Your task to perform on an android device: Search for macbook on costco, select the first entry, add it to the cart, then select checkout. Image 0: 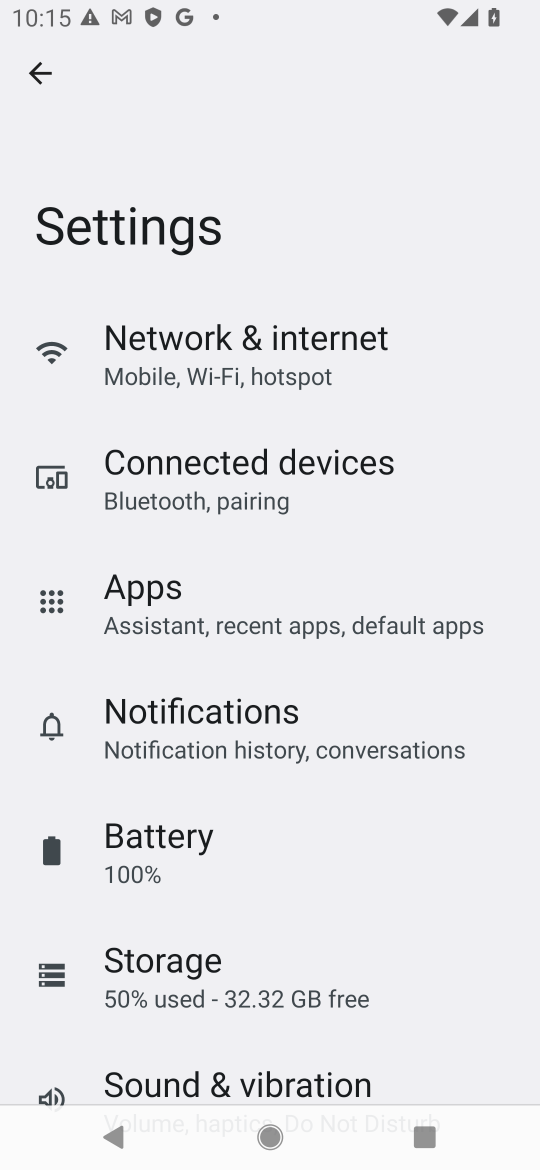
Step 0: press home button
Your task to perform on an android device: Search for macbook on costco, select the first entry, add it to the cart, then select checkout. Image 1: 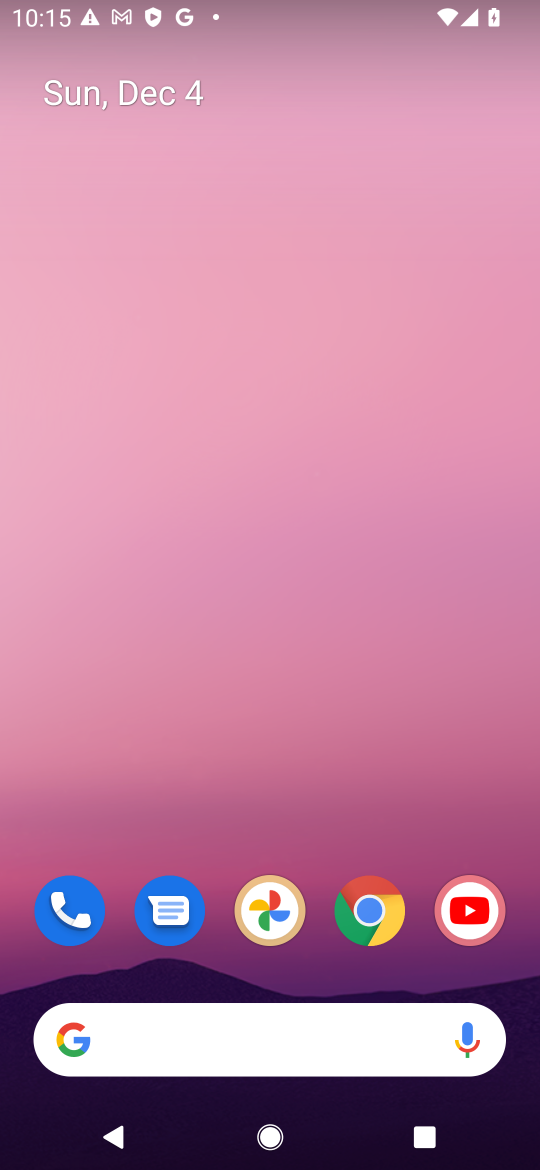
Step 1: drag from (321, 1086) to (146, 76)
Your task to perform on an android device: Search for macbook on costco, select the first entry, add it to the cart, then select checkout. Image 2: 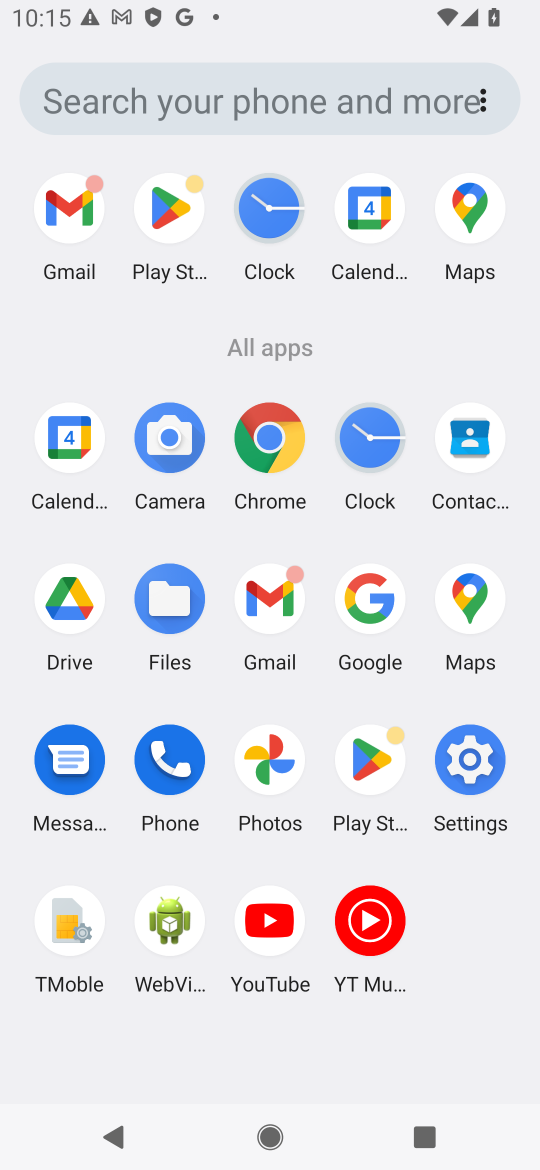
Step 2: click (269, 418)
Your task to perform on an android device: Search for macbook on costco, select the first entry, add it to the cart, then select checkout. Image 3: 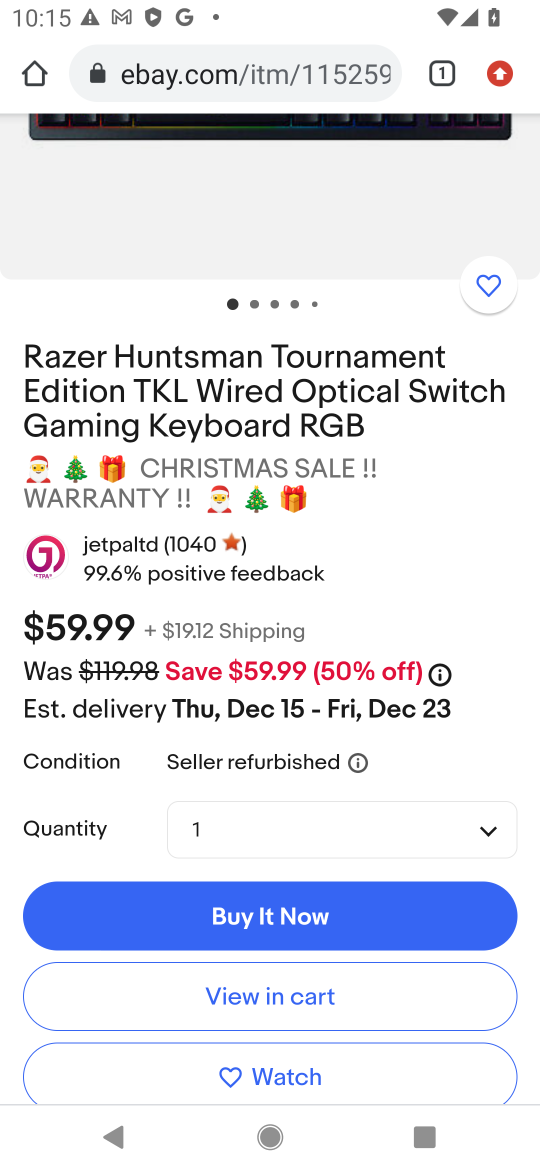
Step 3: click (155, 65)
Your task to perform on an android device: Search for macbook on costco, select the first entry, add it to the cart, then select checkout. Image 4: 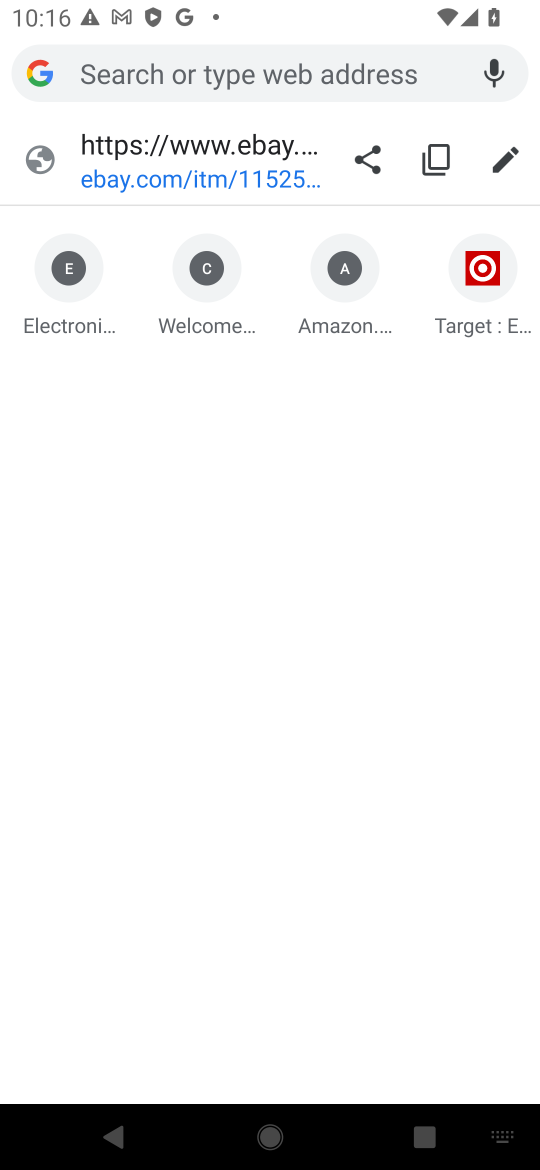
Step 4: type "costco,"
Your task to perform on an android device: Search for macbook on costco, select the first entry, add it to the cart, then select checkout. Image 5: 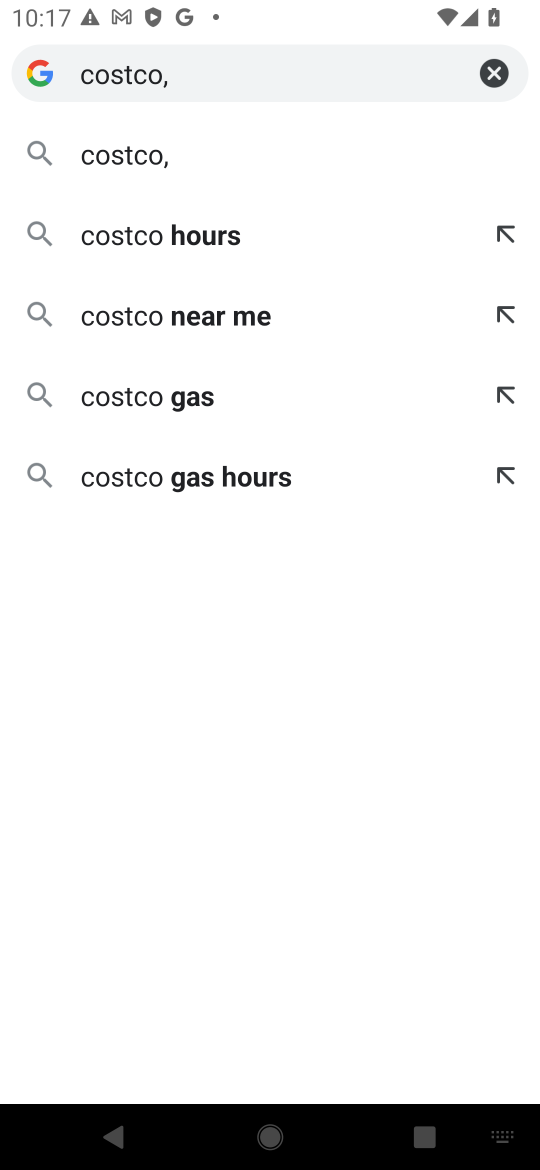
Step 5: click (131, 67)
Your task to perform on an android device: Search for macbook on costco, select the first entry, add it to the cart, then select checkout. Image 6: 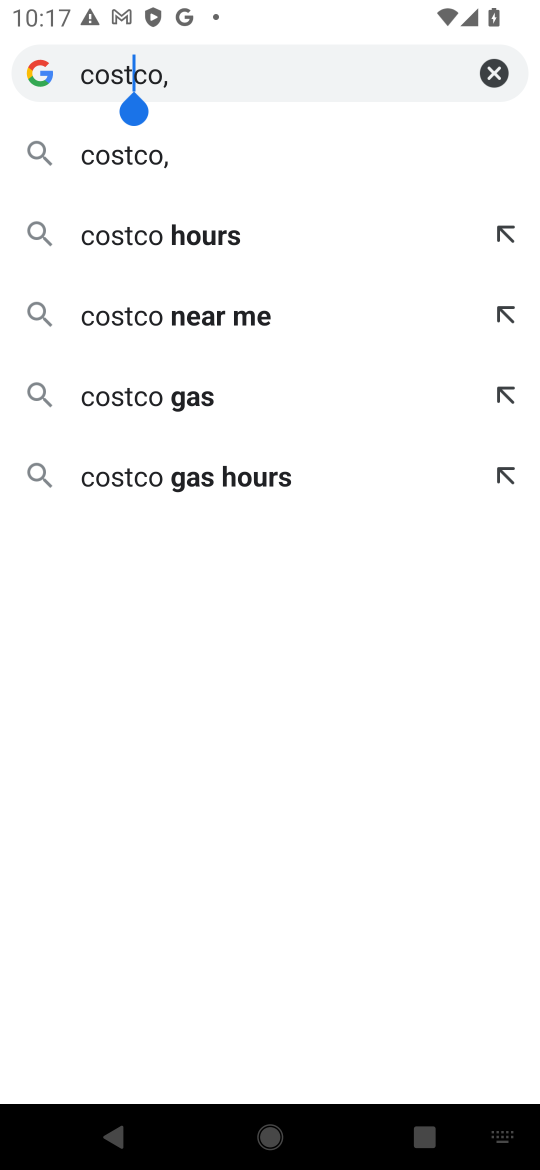
Step 6: click (131, 67)
Your task to perform on an android device: Search for macbook on costco, select the first entry, add it to the cart, then select checkout. Image 7: 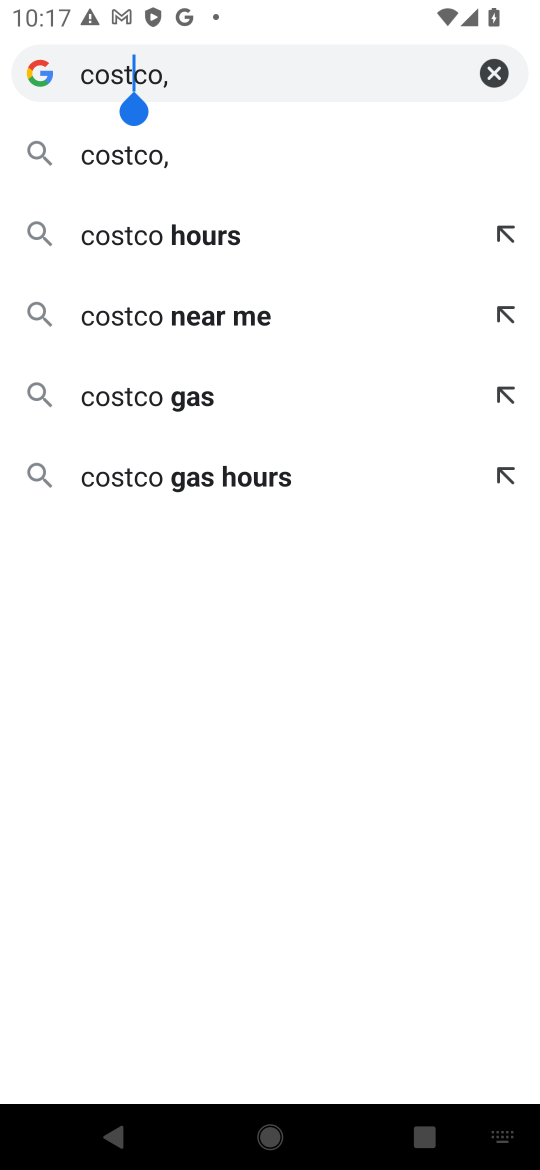
Step 7: click (131, 67)
Your task to perform on an android device: Search for macbook on costco, select the first entry, add it to the cart, then select checkout. Image 8: 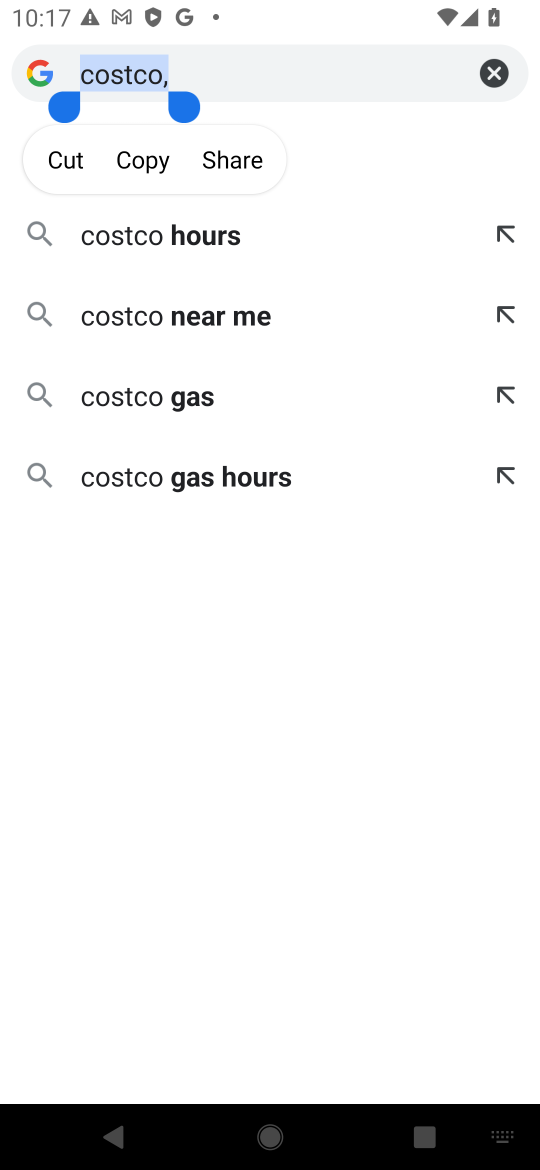
Step 8: click (122, 160)
Your task to perform on an android device: Search for macbook on costco, select the first entry, add it to the cart, then select checkout. Image 9: 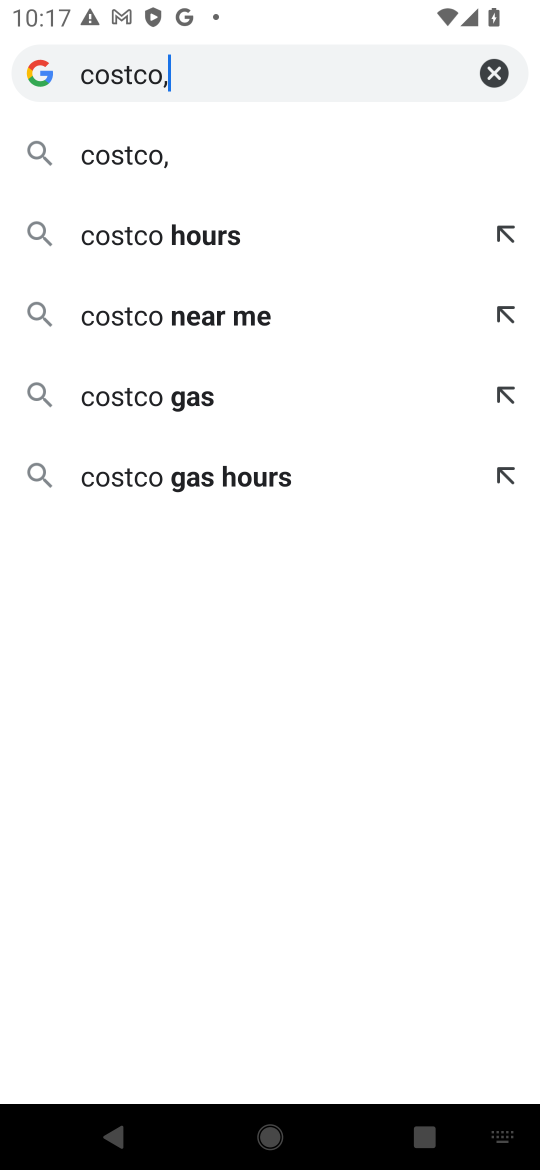
Step 9: click (202, 639)
Your task to perform on an android device: Search for macbook on costco, select the first entry, add it to the cart, then select checkout. Image 10: 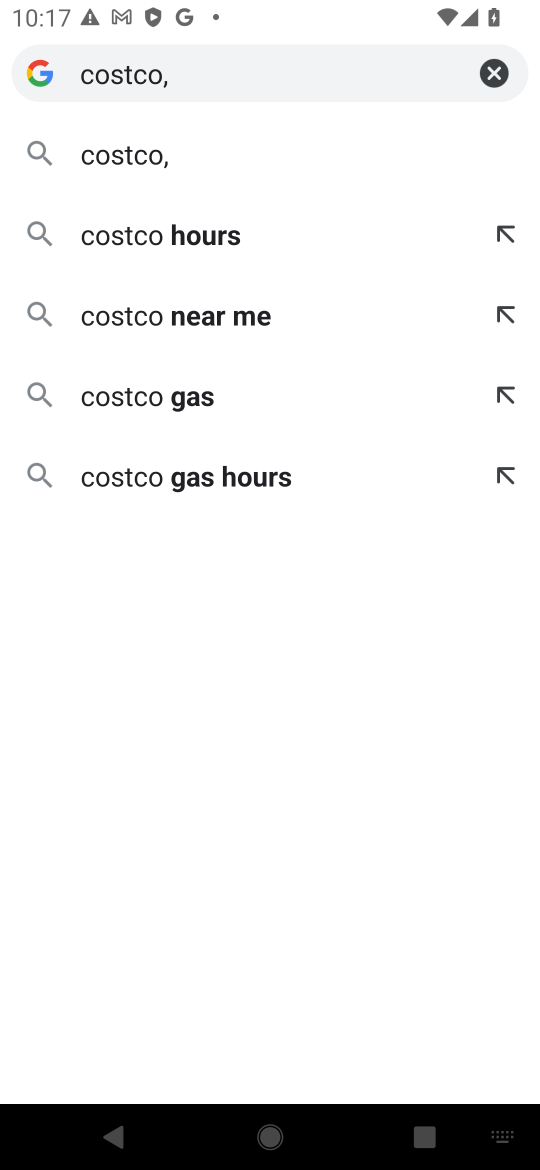
Step 10: click (134, 163)
Your task to perform on an android device: Search for macbook on costco, select the first entry, add it to the cart, then select checkout. Image 11: 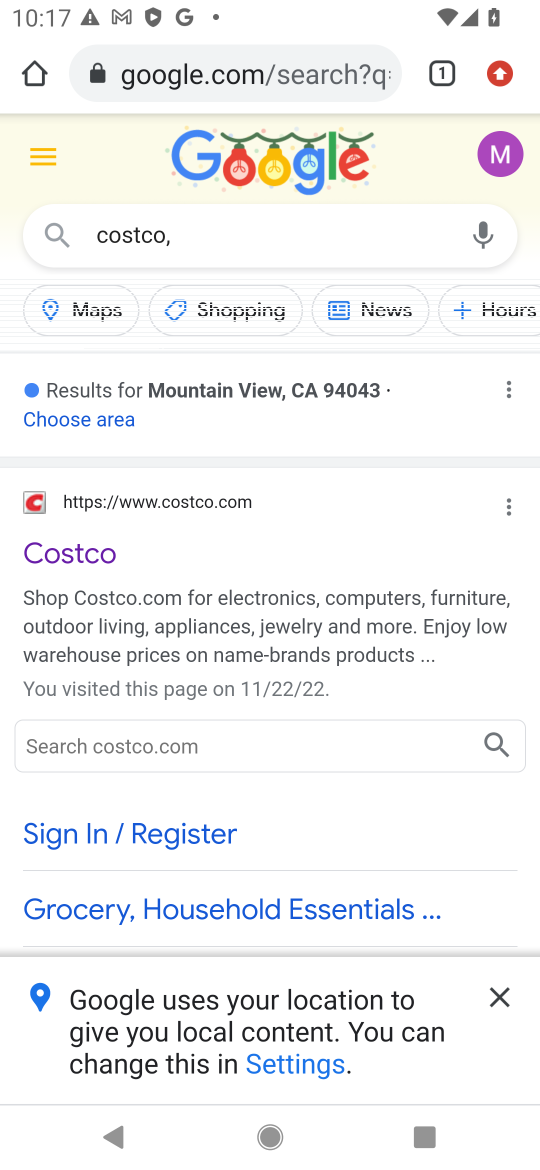
Step 11: click (57, 550)
Your task to perform on an android device: Search for macbook on costco, select the first entry, add it to the cart, then select checkout. Image 12: 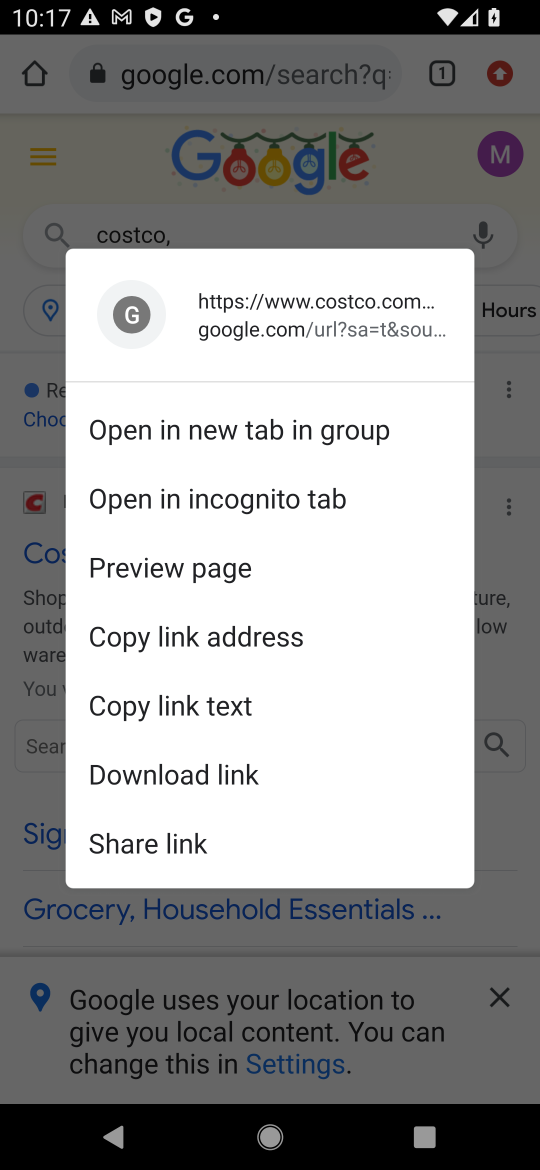
Step 12: click (255, 428)
Your task to perform on an android device: Search for macbook on costco, select the first entry, add it to the cart, then select checkout. Image 13: 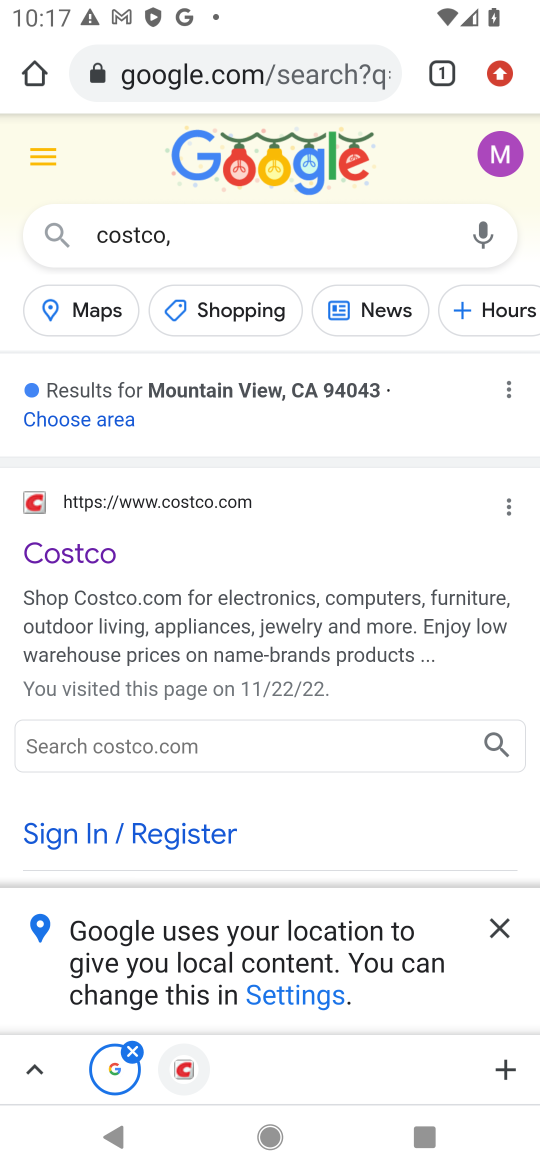
Step 13: drag from (106, 710) to (145, 188)
Your task to perform on an android device: Search for macbook on costco, select the first entry, add it to the cart, then select checkout. Image 14: 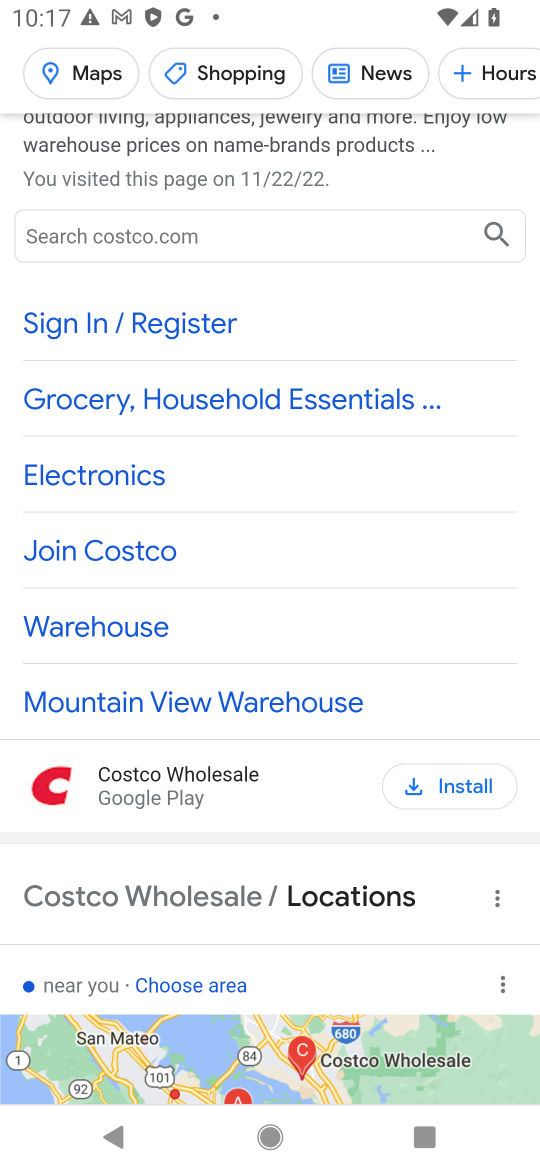
Step 14: drag from (209, 304) to (187, 940)
Your task to perform on an android device: Search for macbook on costco, select the first entry, add it to the cart, then select checkout. Image 15: 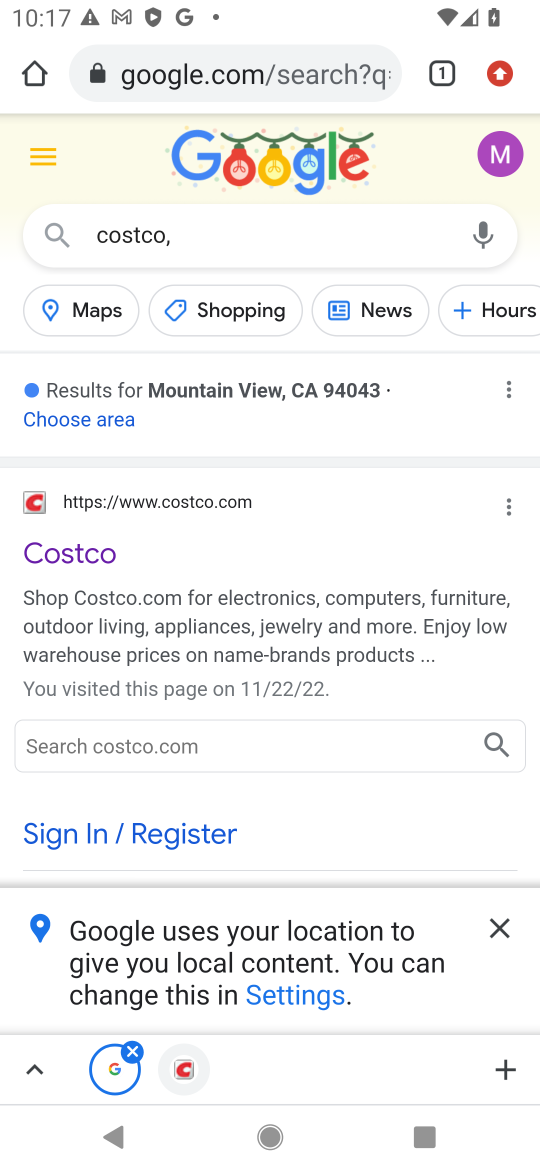
Step 15: click (292, 69)
Your task to perform on an android device: Search for macbook on costco, select the first entry, add it to the cart, then select checkout. Image 16: 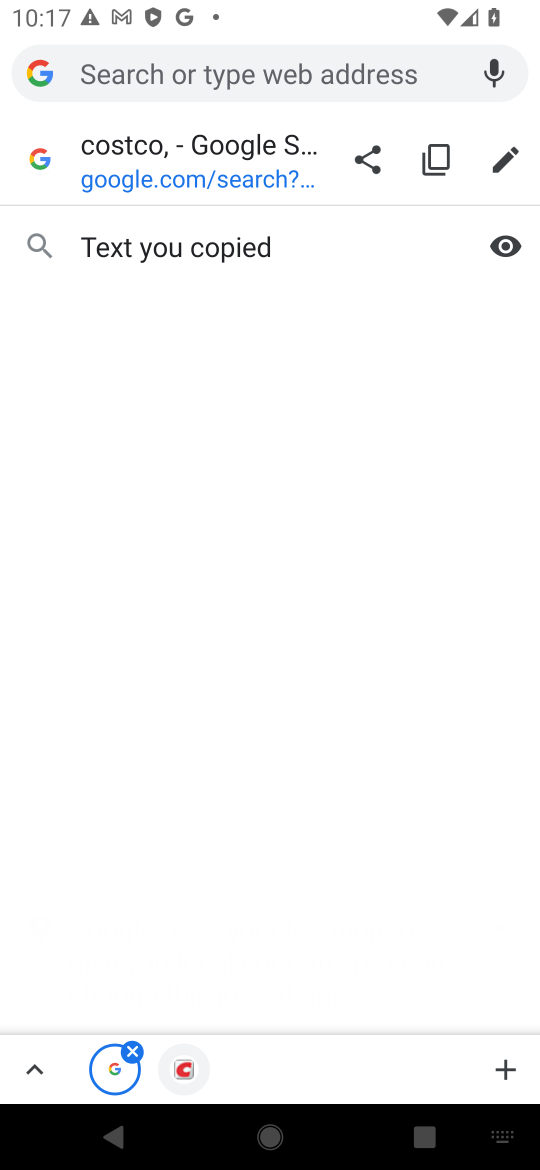
Step 16: type "costco"
Your task to perform on an android device: Search for macbook on costco, select the first entry, add it to the cart, then select checkout. Image 17: 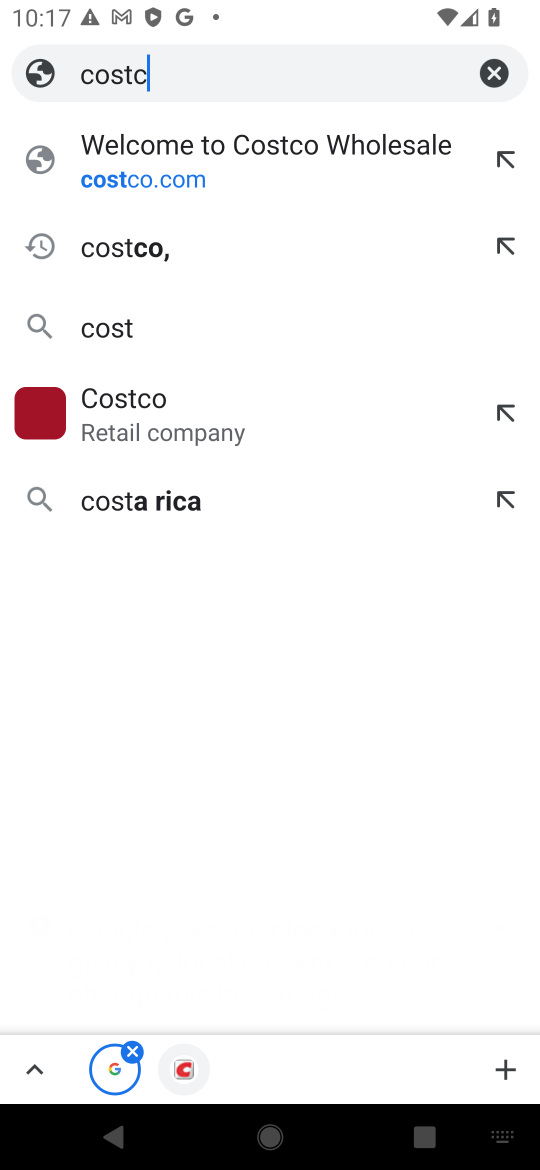
Step 17: type ""
Your task to perform on an android device: Search for macbook on costco, select the first entry, add it to the cart, then select checkout. Image 18: 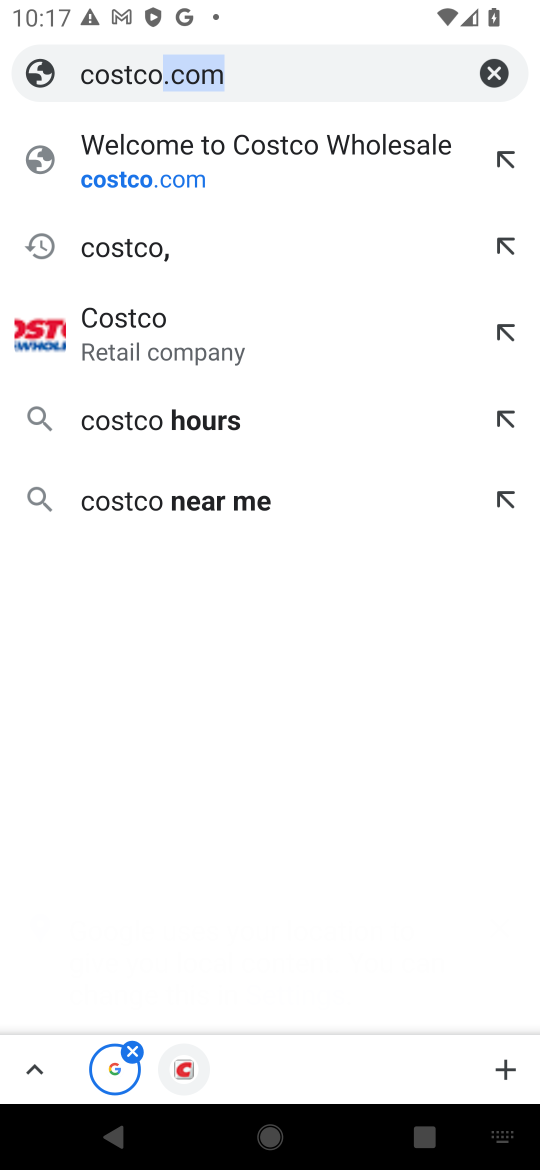
Step 18: click (167, 177)
Your task to perform on an android device: Search for macbook on costco, select the first entry, add it to the cart, then select checkout. Image 19: 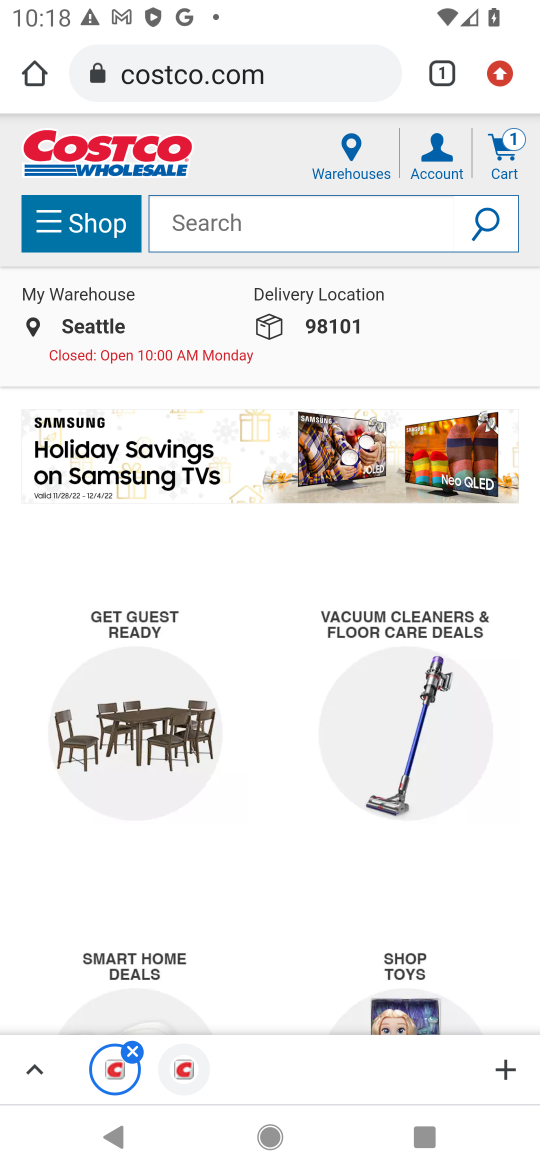
Step 19: drag from (243, 799) to (236, 1033)
Your task to perform on an android device: Search for macbook on costco, select the first entry, add it to the cart, then select checkout. Image 20: 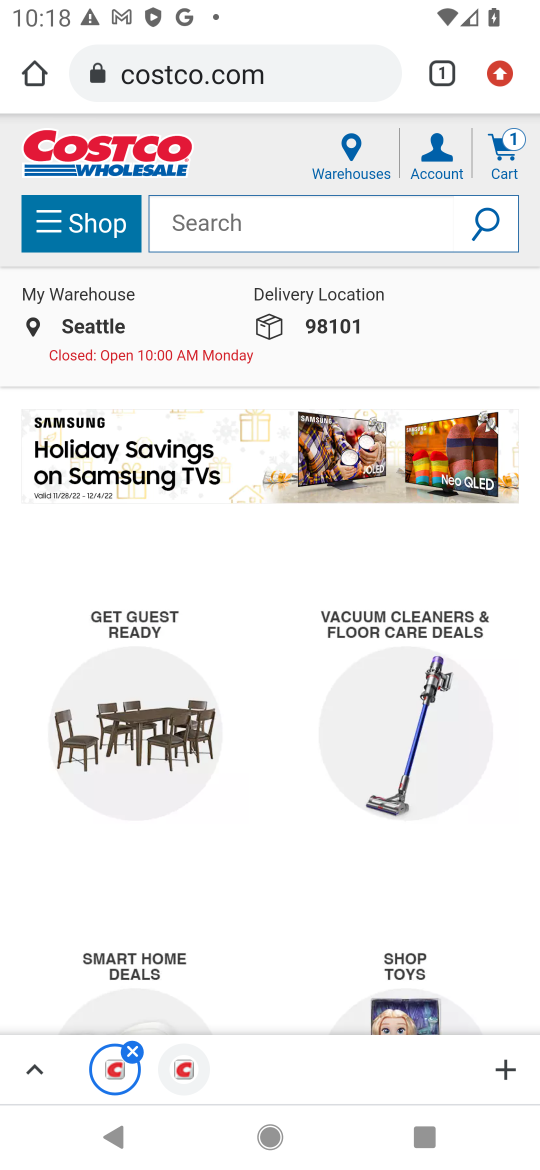
Step 20: click (222, 212)
Your task to perform on an android device: Search for macbook on costco, select the first entry, add it to the cart, then select checkout. Image 21: 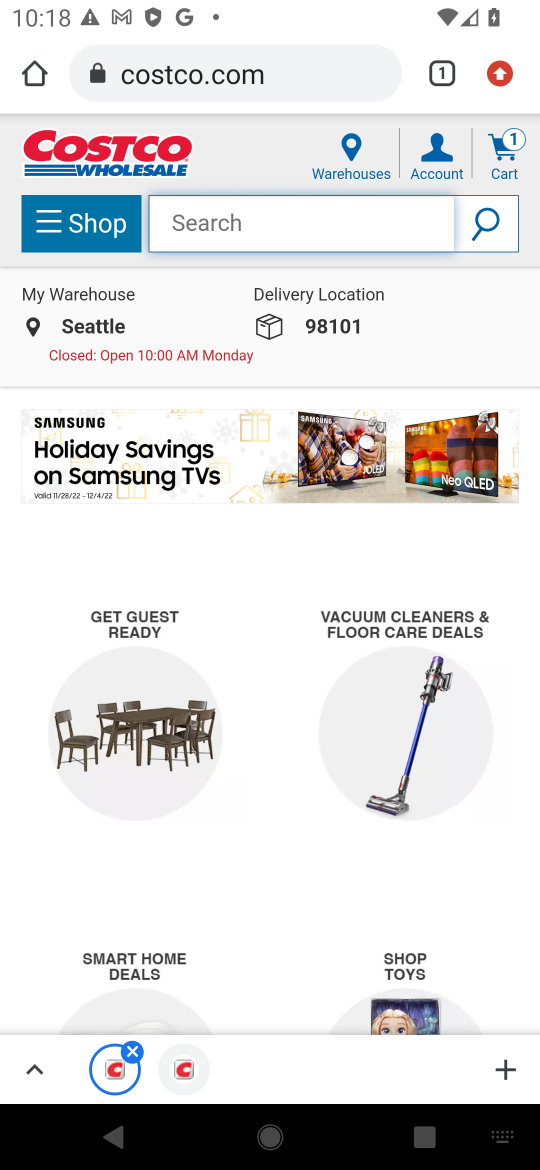
Step 21: type "macbook "
Your task to perform on an android device: Search for macbook on costco, select the first entry, add it to the cart, then select checkout. Image 22: 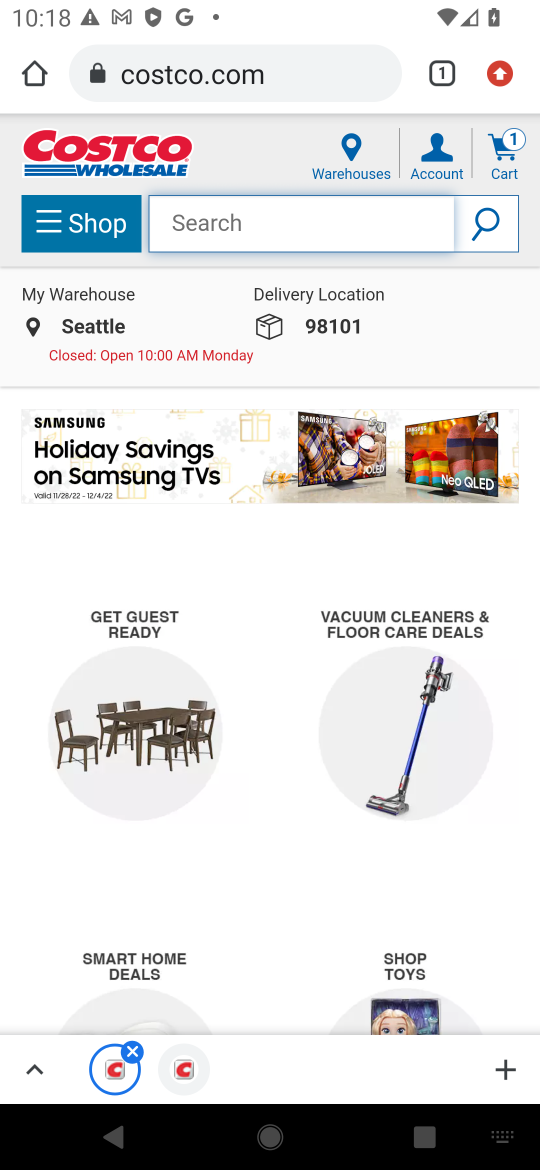
Step 22: type ""
Your task to perform on an android device: Search for macbook on costco, select the first entry, add it to the cart, then select checkout. Image 23: 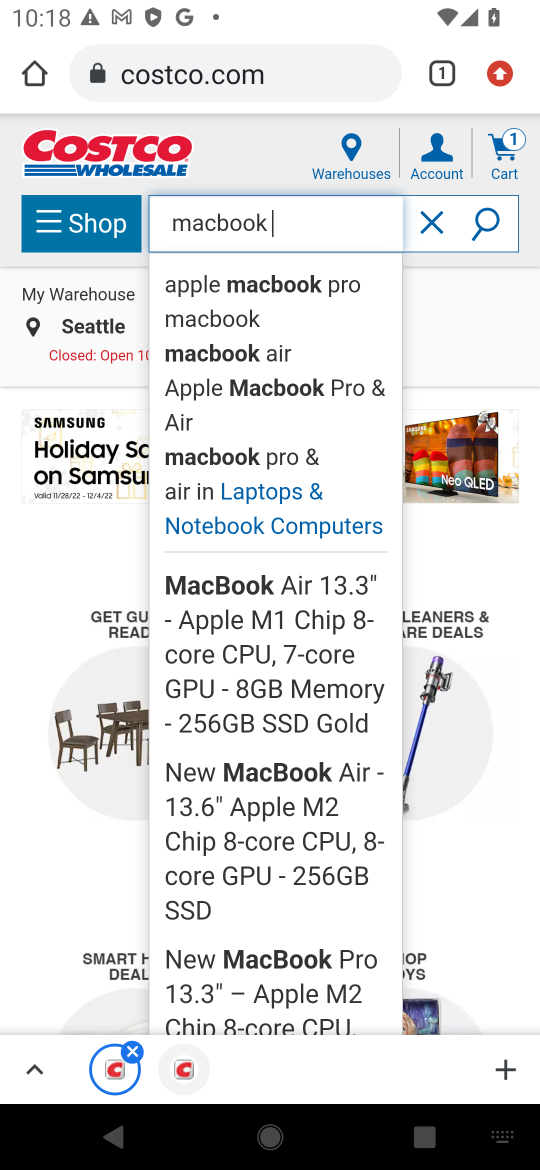
Step 23: click (484, 219)
Your task to perform on an android device: Search for macbook on costco, select the first entry, add it to the cart, then select checkout. Image 24: 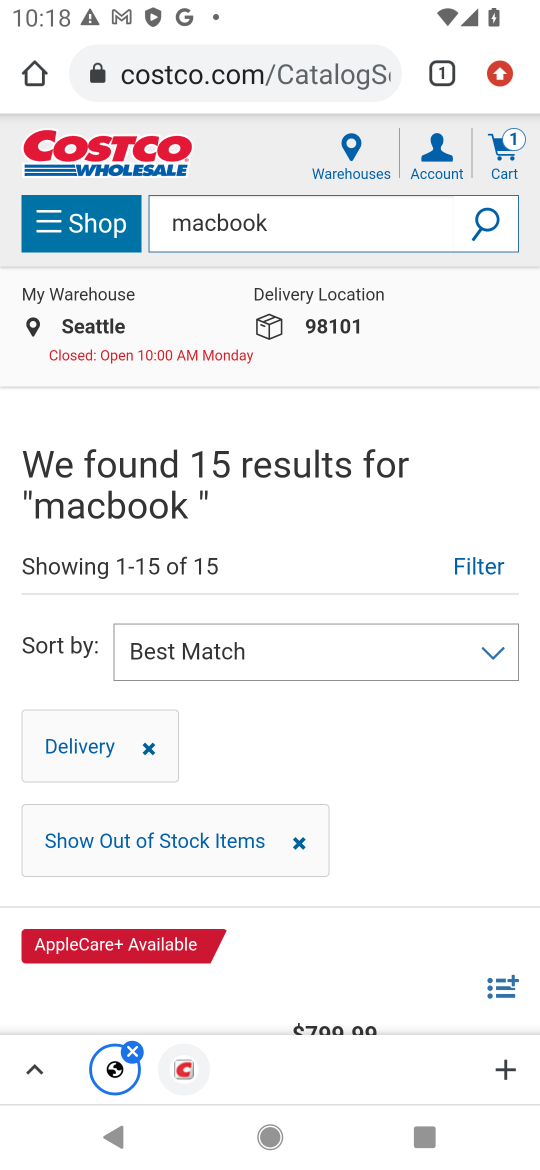
Step 24: drag from (374, 580) to (374, 381)
Your task to perform on an android device: Search for macbook on costco, select the first entry, add it to the cart, then select checkout. Image 25: 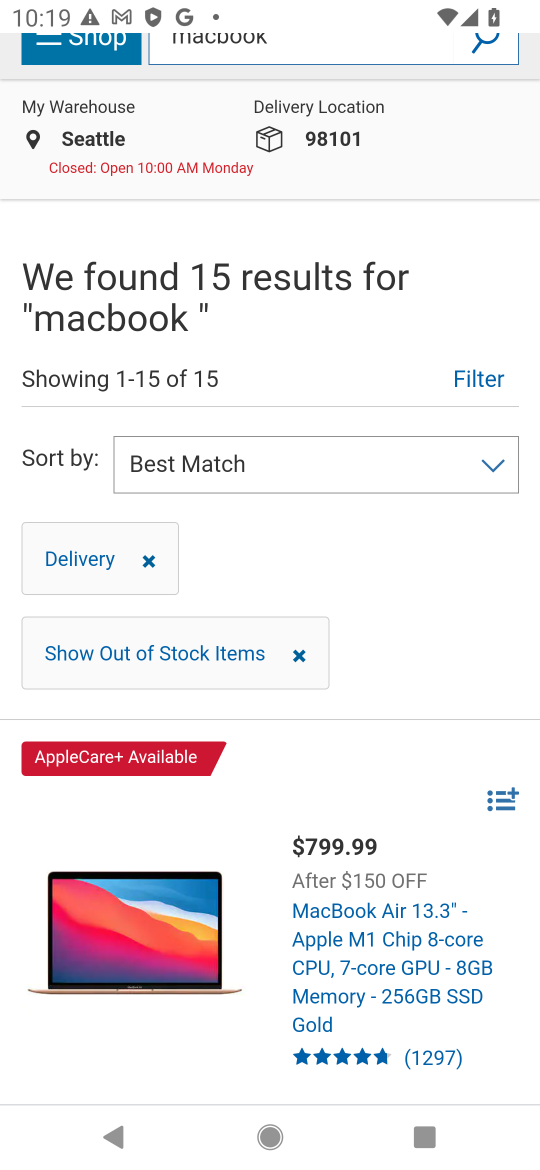
Step 25: click (272, 932)
Your task to perform on an android device: Search for macbook on costco, select the first entry, add it to the cart, then select checkout. Image 26: 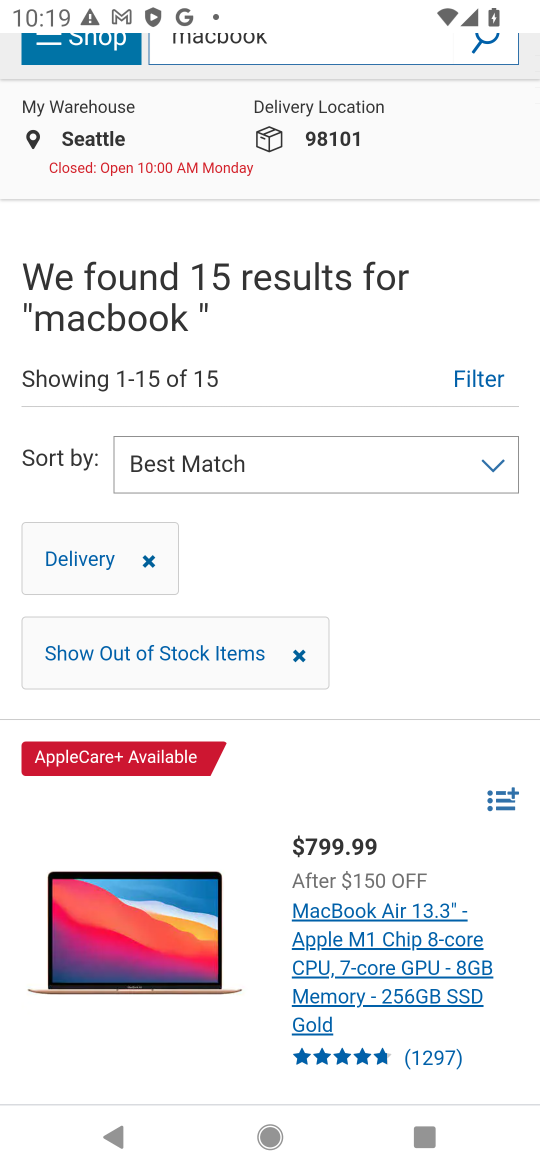
Step 26: click (164, 904)
Your task to perform on an android device: Search for macbook on costco, select the first entry, add it to the cart, then select checkout. Image 27: 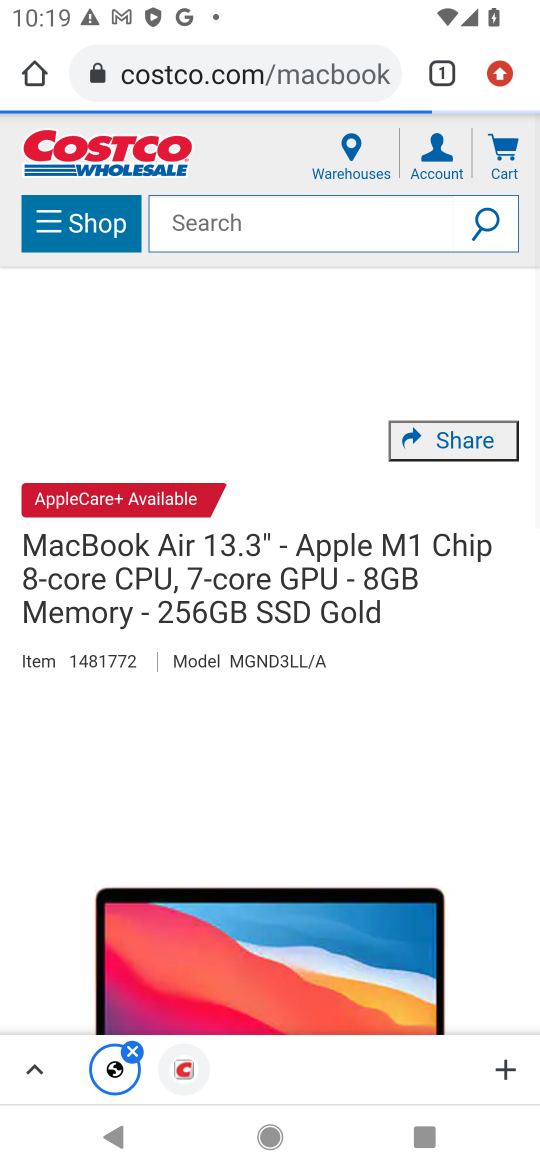
Step 27: drag from (339, 786) to (389, 76)
Your task to perform on an android device: Search for macbook on costco, select the first entry, add it to the cart, then select checkout. Image 28: 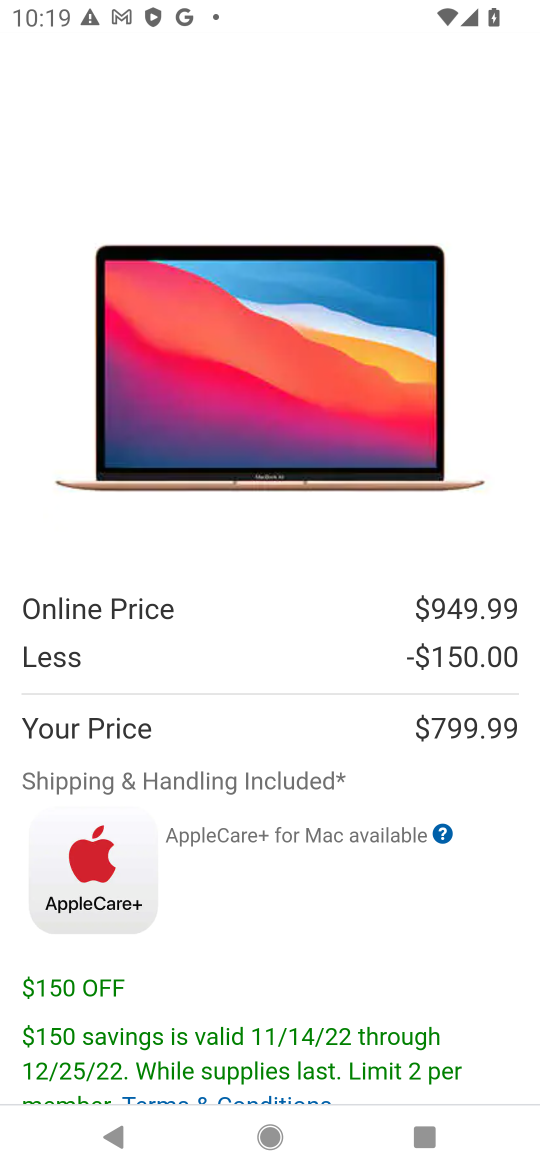
Step 28: drag from (273, 943) to (363, 274)
Your task to perform on an android device: Search for macbook on costco, select the first entry, add it to the cart, then select checkout. Image 29: 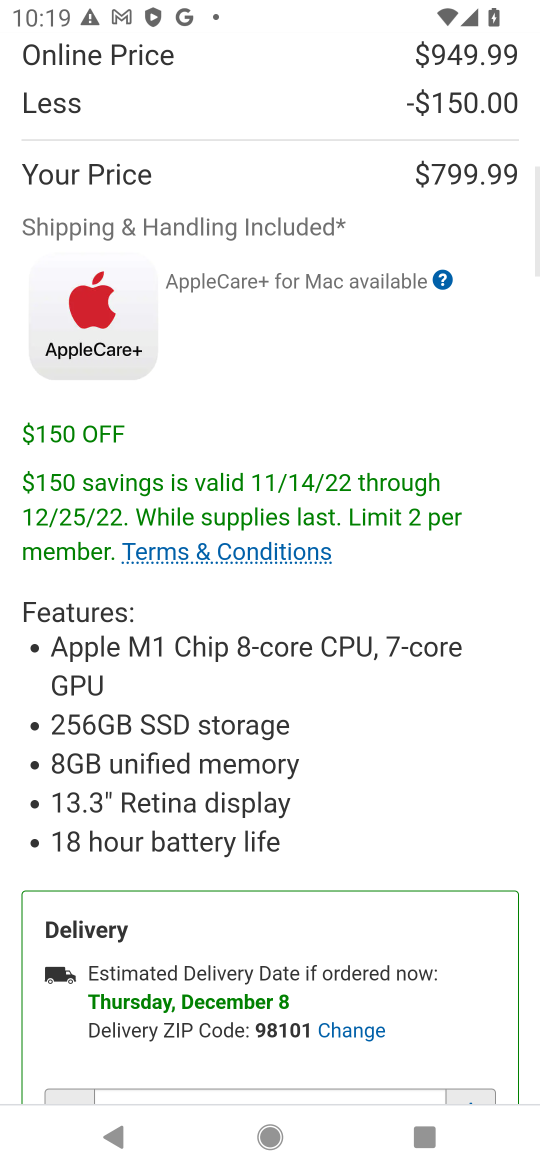
Step 29: drag from (268, 967) to (263, 379)
Your task to perform on an android device: Search for macbook on costco, select the first entry, add it to the cart, then select checkout. Image 30: 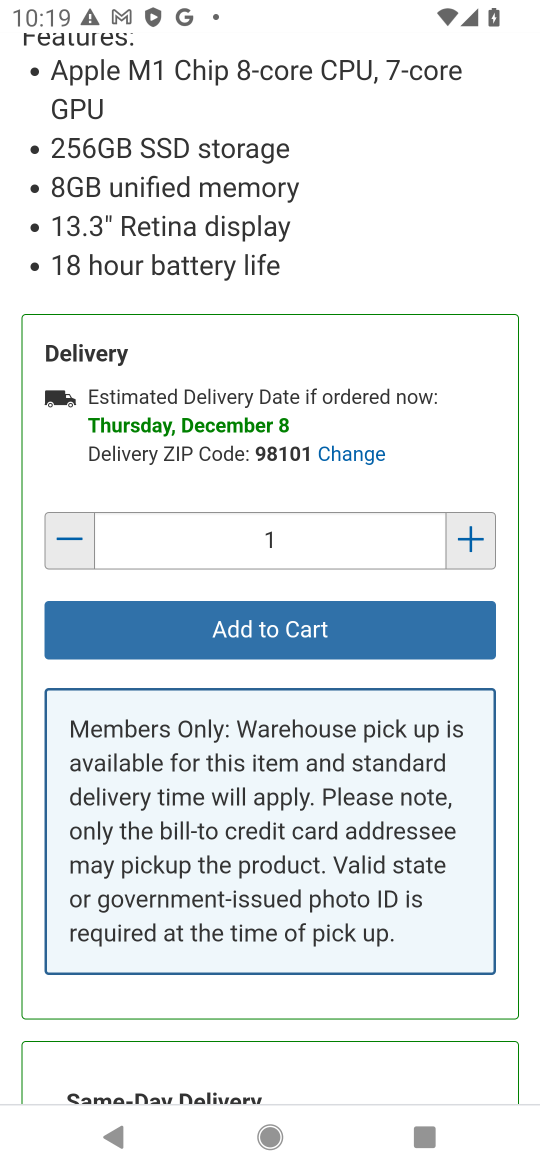
Step 30: click (289, 640)
Your task to perform on an android device: Search for macbook on costco, select the first entry, add it to the cart, then select checkout. Image 31: 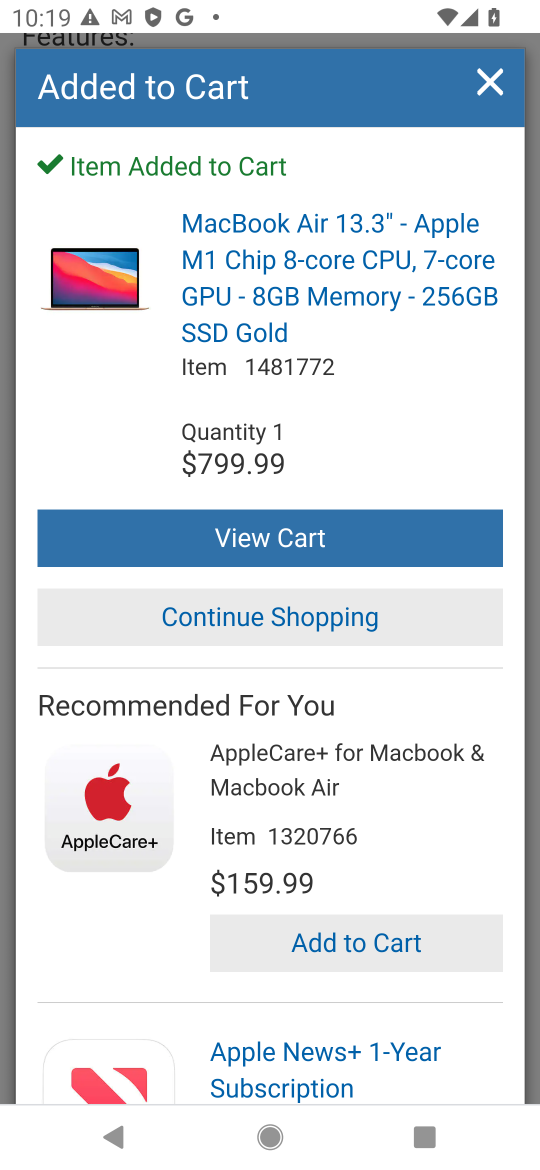
Step 31: task complete